Your task to perform on an android device: change keyboard looks Image 0: 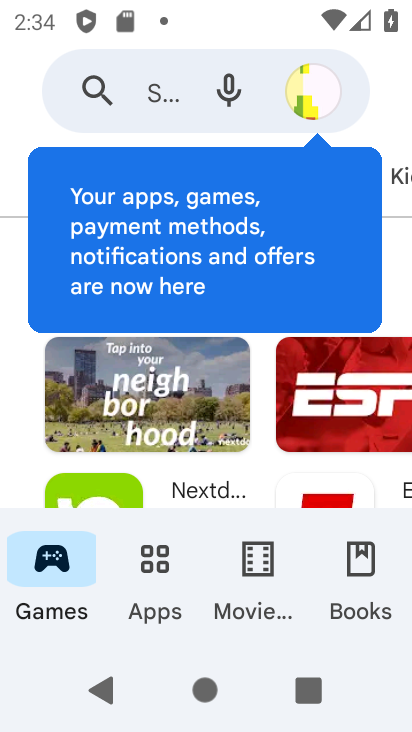
Step 0: task complete